Your task to perform on an android device: Go to Wikipedia Image 0: 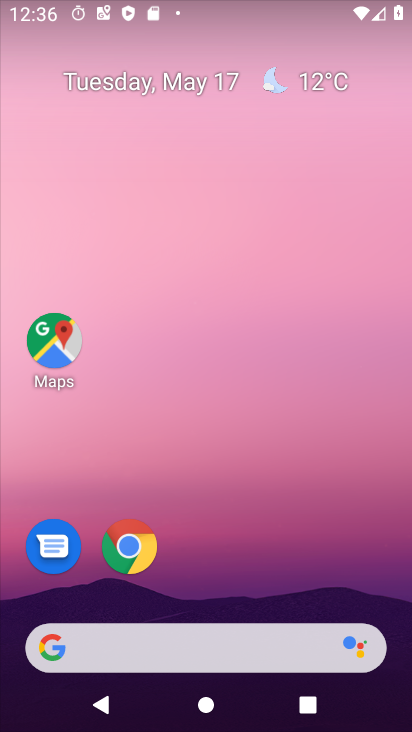
Step 0: click (137, 548)
Your task to perform on an android device: Go to Wikipedia Image 1: 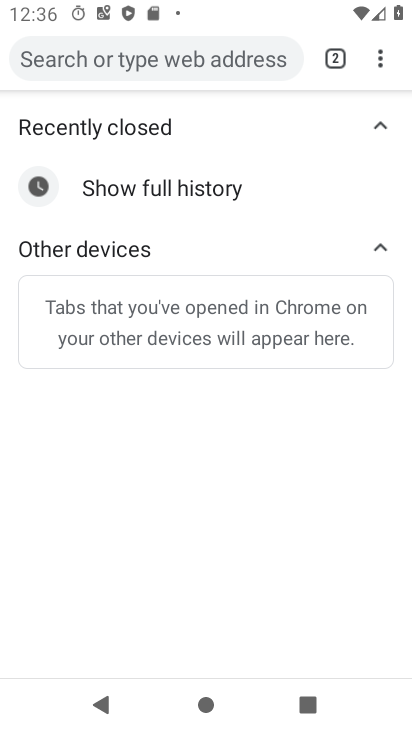
Step 1: drag from (386, 63) to (332, 114)
Your task to perform on an android device: Go to Wikipedia Image 2: 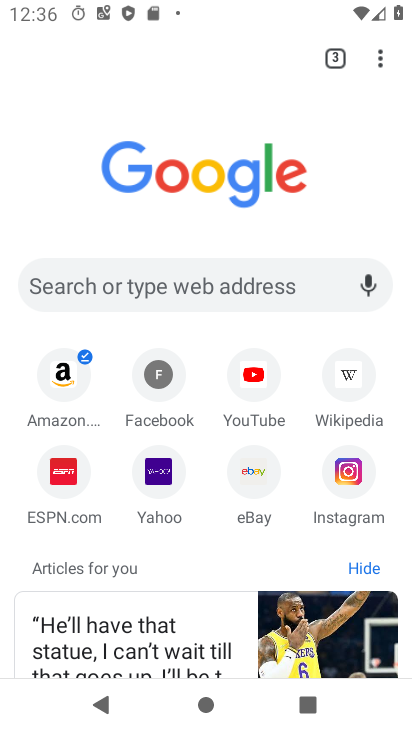
Step 2: click (351, 387)
Your task to perform on an android device: Go to Wikipedia Image 3: 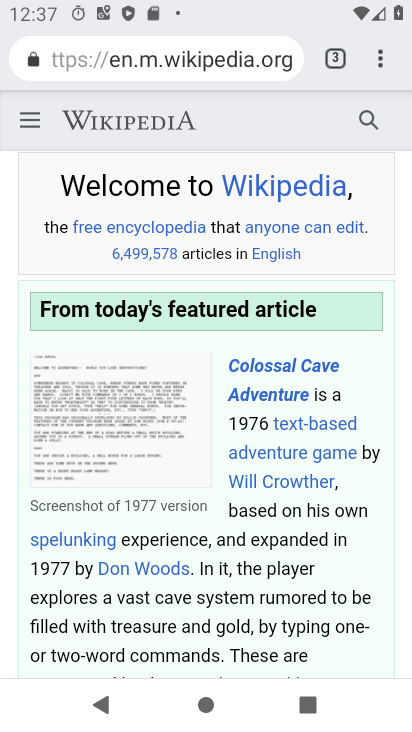
Step 3: task complete